Your task to perform on an android device: allow notifications from all sites in the chrome app Image 0: 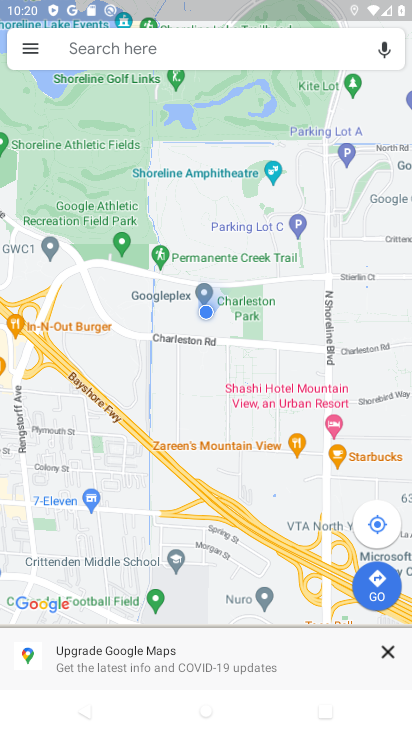
Step 0: press home button
Your task to perform on an android device: allow notifications from all sites in the chrome app Image 1: 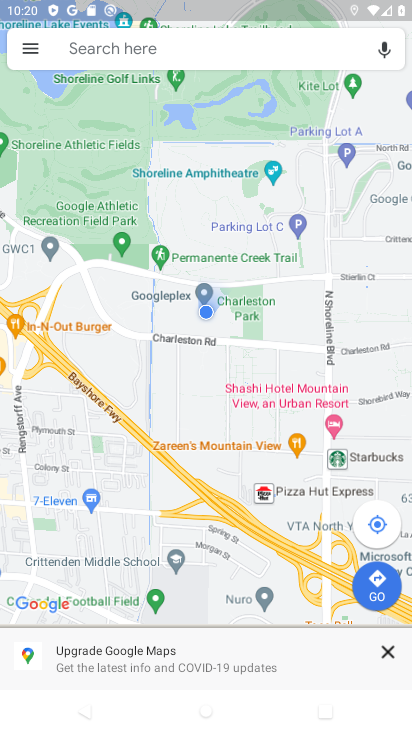
Step 1: drag from (361, 630) to (349, 227)
Your task to perform on an android device: allow notifications from all sites in the chrome app Image 2: 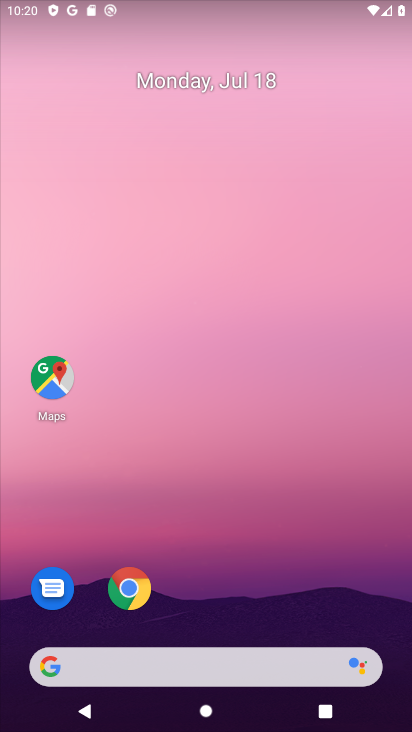
Step 2: click (141, 602)
Your task to perform on an android device: allow notifications from all sites in the chrome app Image 3: 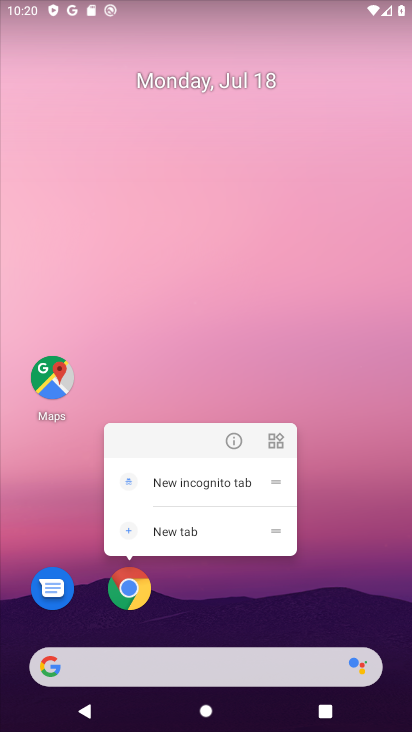
Step 3: click (227, 428)
Your task to perform on an android device: allow notifications from all sites in the chrome app Image 4: 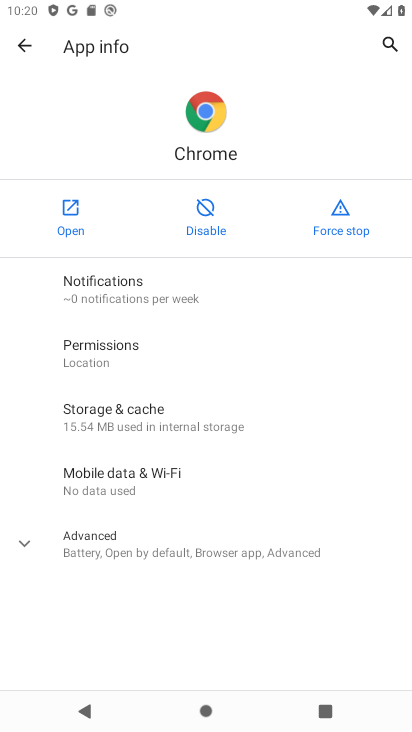
Step 4: click (73, 360)
Your task to perform on an android device: allow notifications from all sites in the chrome app Image 5: 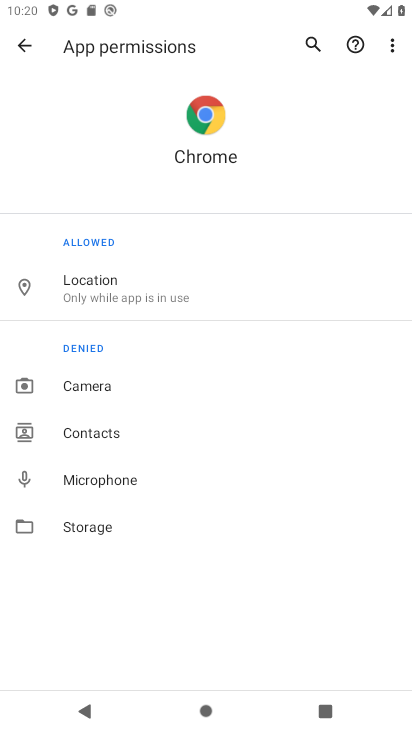
Step 5: click (117, 393)
Your task to perform on an android device: allow notifications from all sites in the chrome app Image 6: 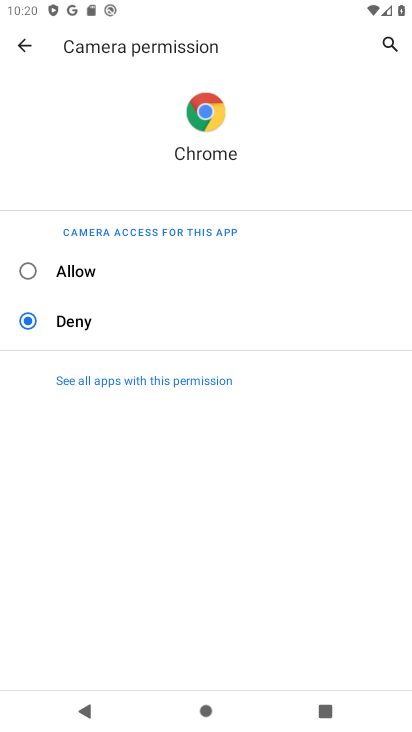
Step 6: click (96, 264)
Your task to perform on an android device: allow notifications from all sites in the chrome app Image 7: 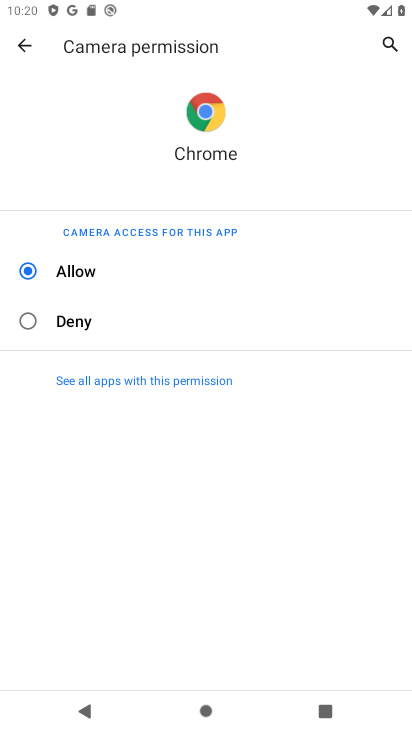
Step 7: click (19, 38)
Your task to perform on an android device: allow notifications from all sites in the chrome app Image 8: 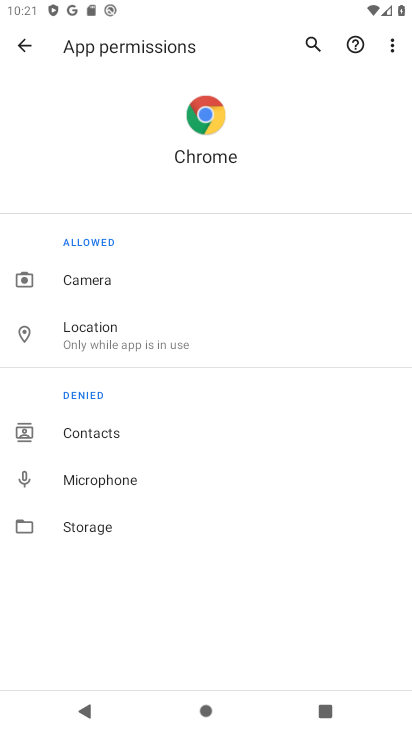
Step 8: click (62, 434)
Your task to perform on an android device: allow notifications from all sites in the chrome app Image 9: 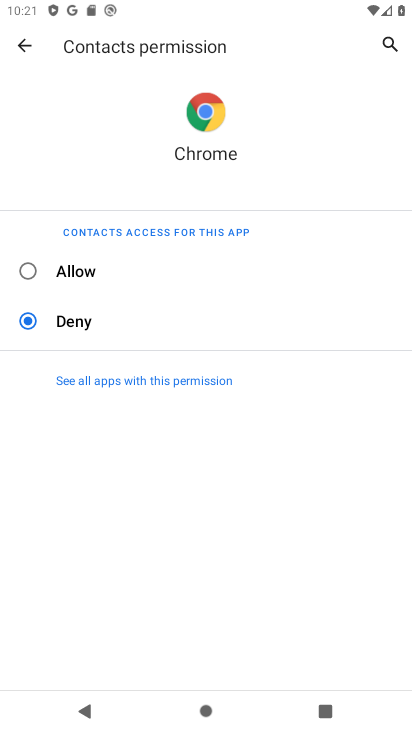
Step 9: click (50, 272)
Your task to perform on an android device: allow notifications from all sites in the chrome app Image 10: 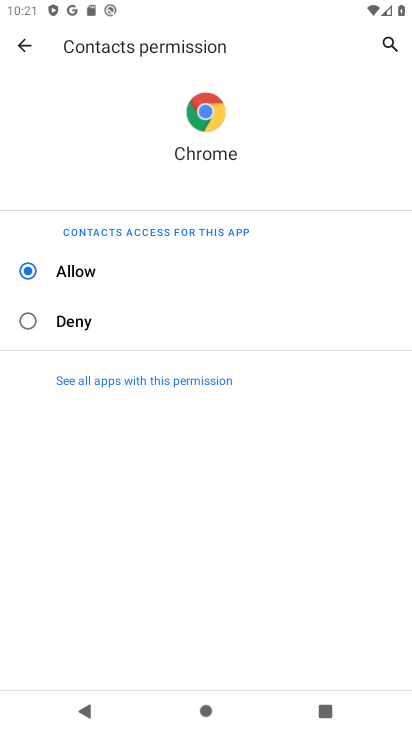
Step 10: click (20, 48)
Your task to perform on an android device: allow notifications from all sites in the chrome app Image 11: 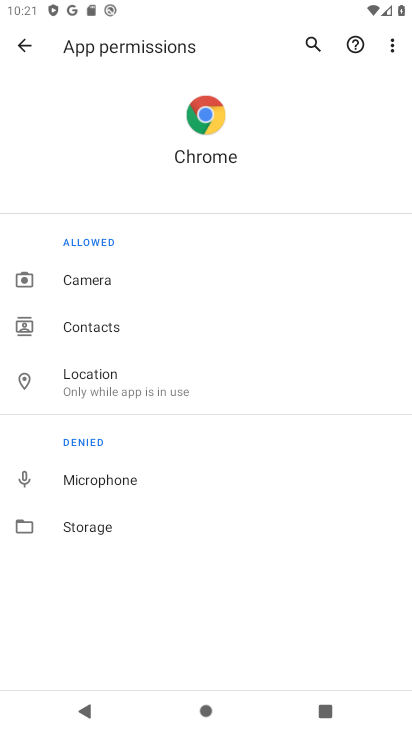
Step 11: click (94, 475)
Your task to perform on an android device: allow notifications from all sites in the chrome app Image 12: 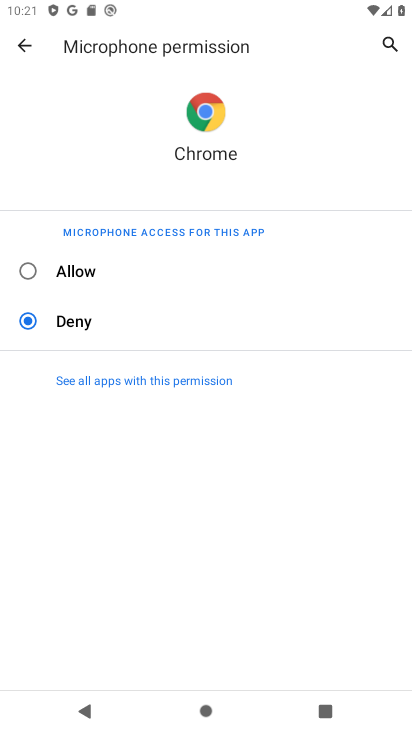
Step 12: click (60, 281)
Your task to perform on an android device: allow notifications from all sites in the chrome app Image 13: 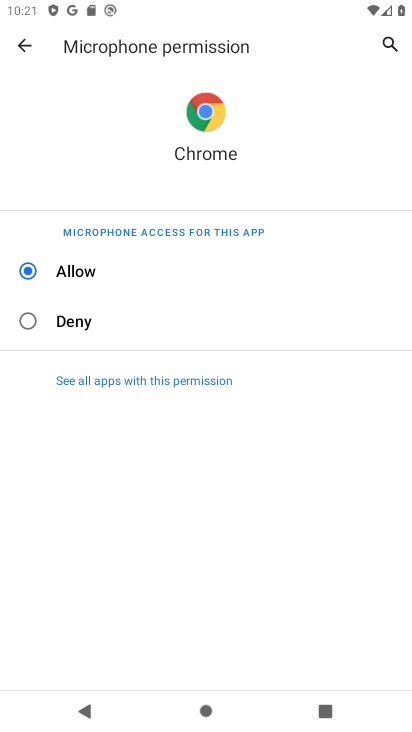
Step 13: click (25, 49)
Your task to perform on an android device: allow notifications from all sites in the chrome app Image 14: 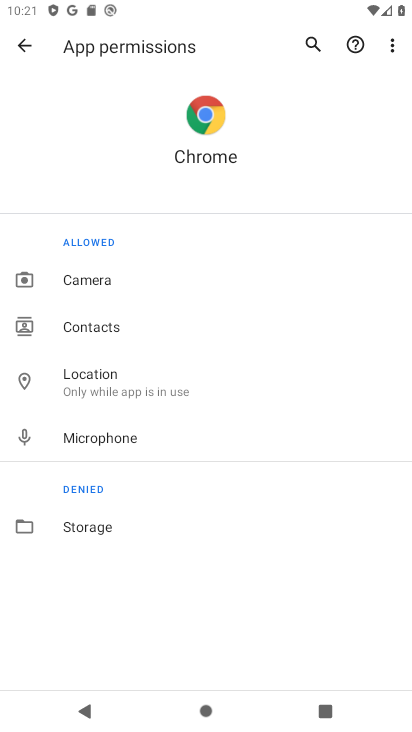
Step 14: click (77, 520)
Your task to perform on an android device: allow notifications from all sites in the chrome app Image 15: 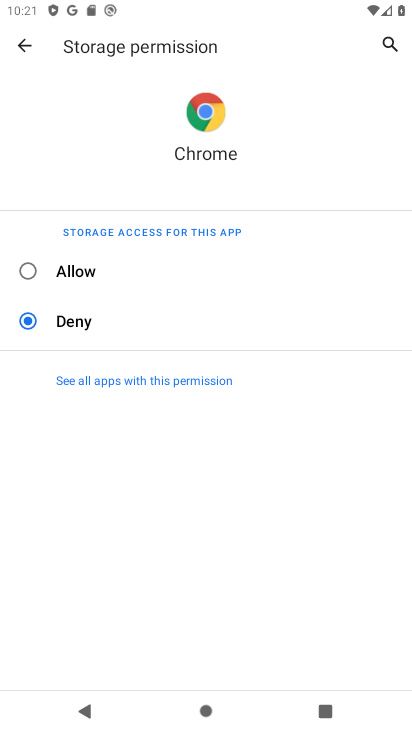
Step 15: click (82, 271)
Your task to perform on an android device: allow notifications from all sites in the chrome app Image 16: 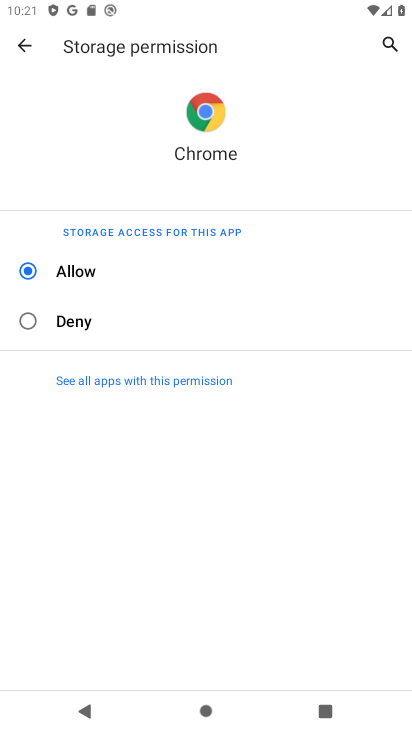
Step 16: click (13, 57)
Your task to perform on an android device: allow notifications from all sites in the chrome app Image 17: 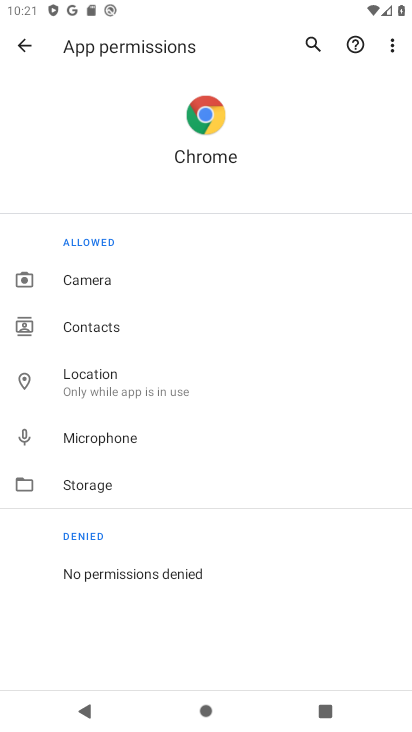
Step 17: task complete